Your task to perform on an android device: open app "Microsoft Outlook" (install if not already installed) Image 0: 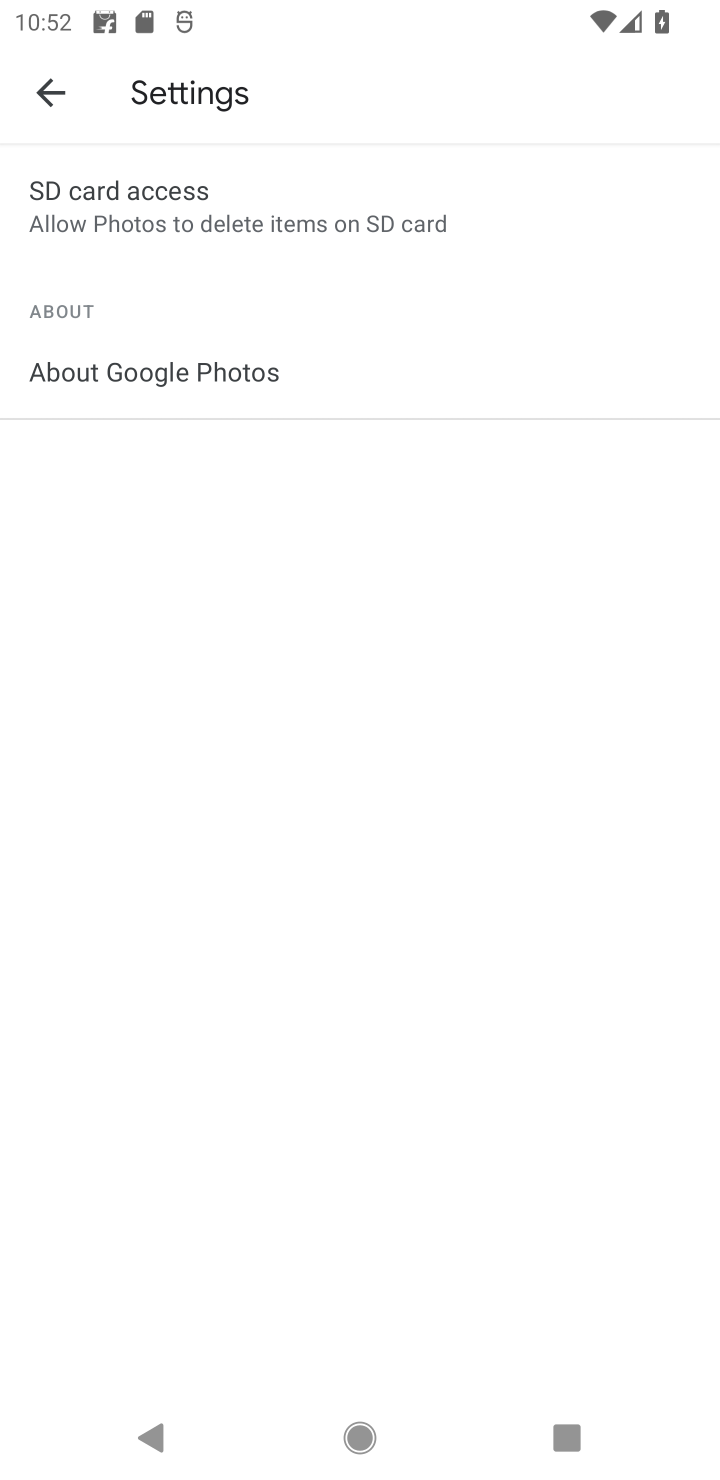
Step 0: press home button
Your task to perform on an android device: open app "Microsoft Outlook" (install if not already installed) Image 1: 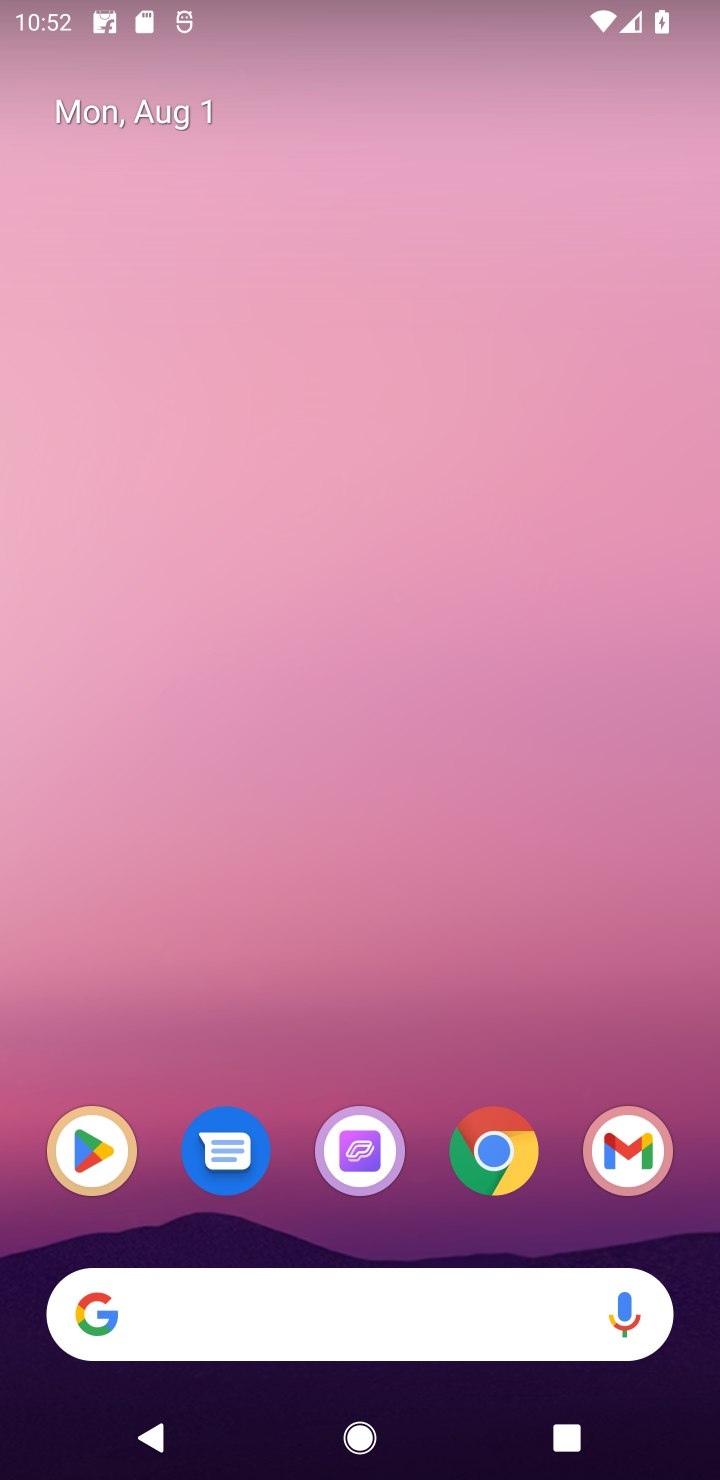
Step 1: click (99, 1180)
Your task to perform on an android device: open app "Microsoft Outlook" (install if not already installed) Image 2: 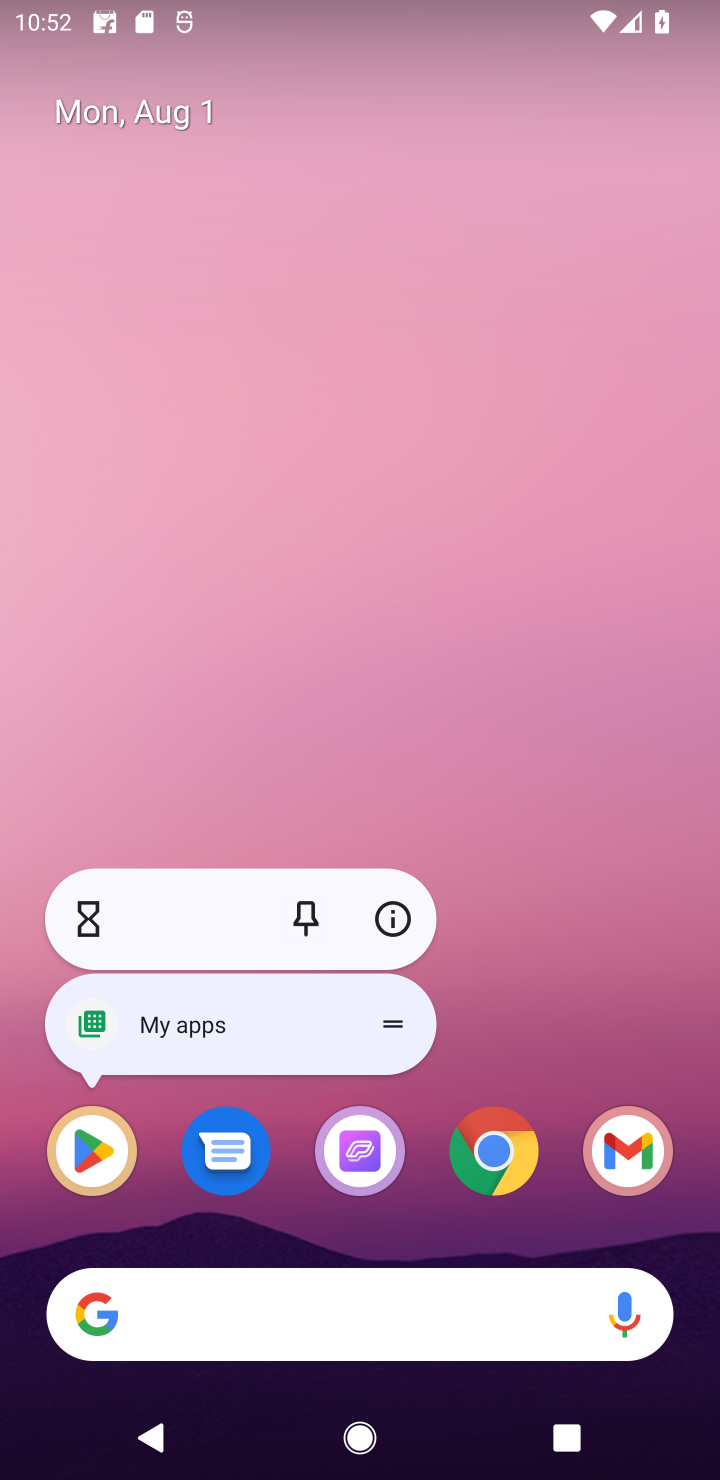
Step 2: click (101, 1180)
Your task to perform on an android device: open app "Microsoft Outlook" (install if not already installed) Image 3: 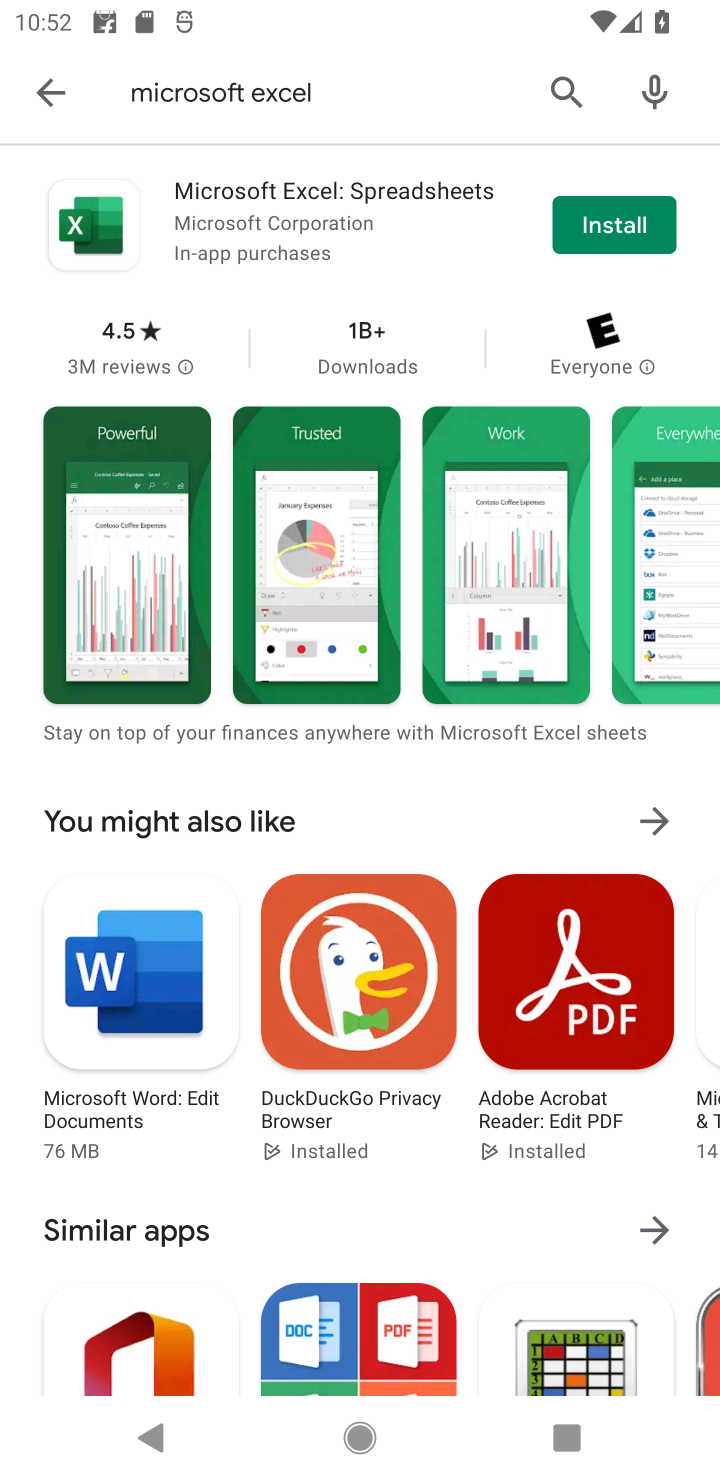
Step 3: click (557, 87)
Your task to perform on an android device: open app "Microsoft Outlook" (install if not already installed) Image 4: 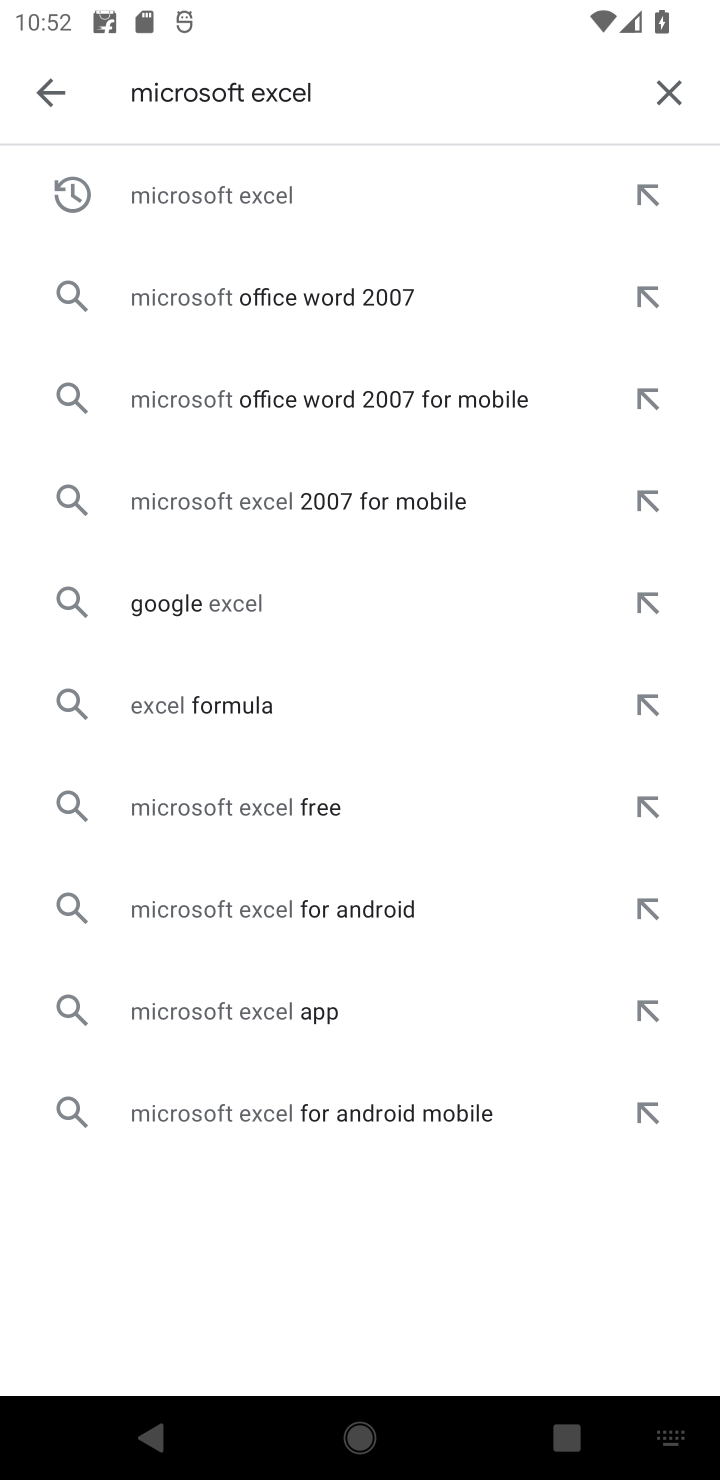
Step 4: click (674, 104)
Your task to perform on an android device: open app "Microsoft Outlook" (install if not already installed) Image 5: 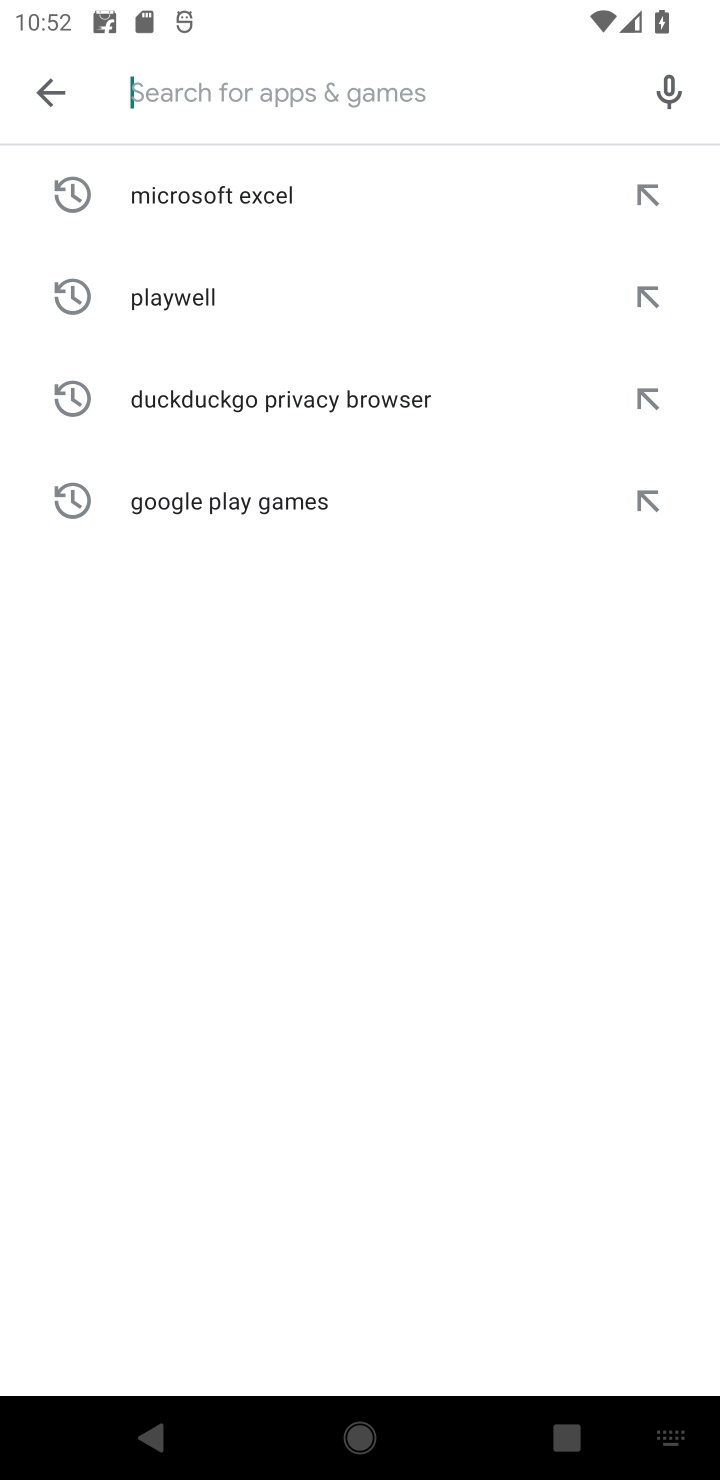
Step 5: click (452, 95)
Your task to perform on an android device: open app "Microsoft Outlook" (install if not already installed) Image 6: 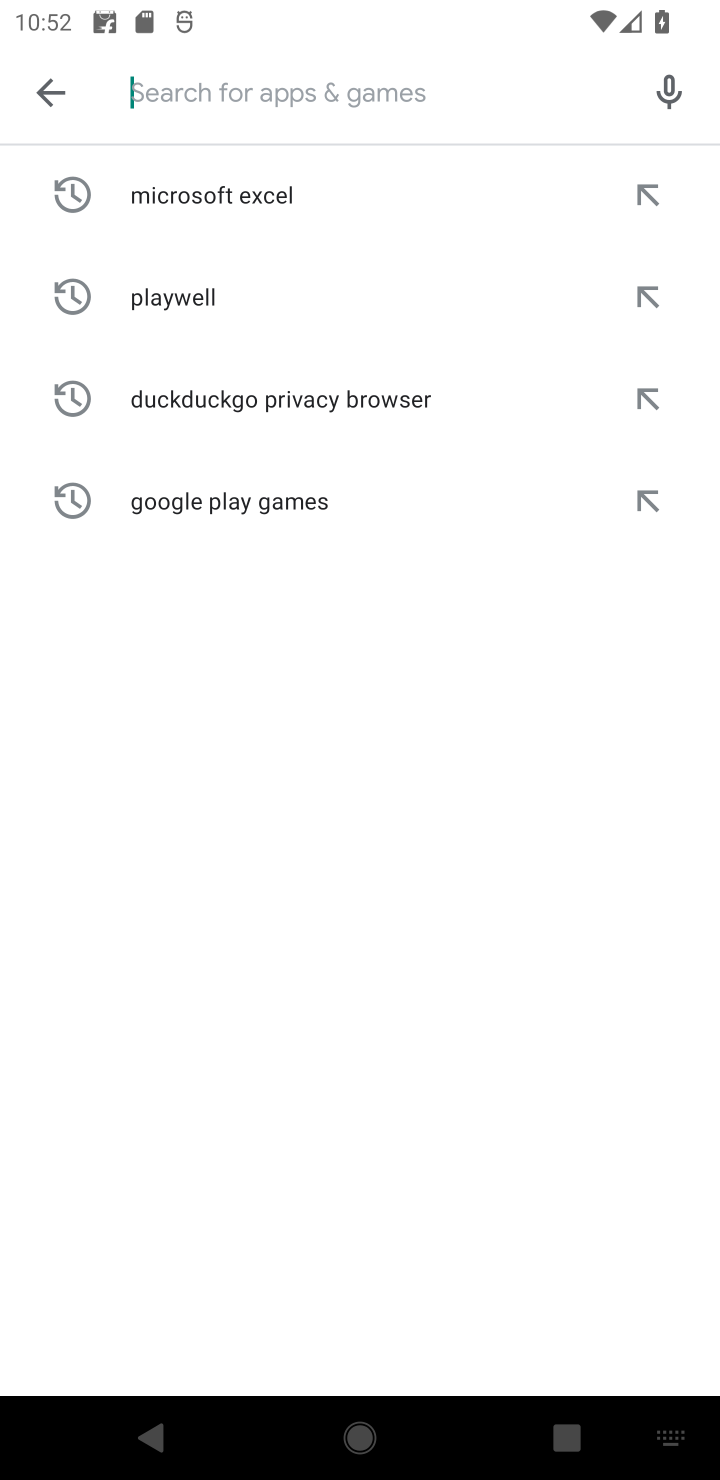
Step 6: type "Microsoft Outlook"
Your task to perform on an android device: open app "Microsoft Outlook" (install if not already installed) Image 7: 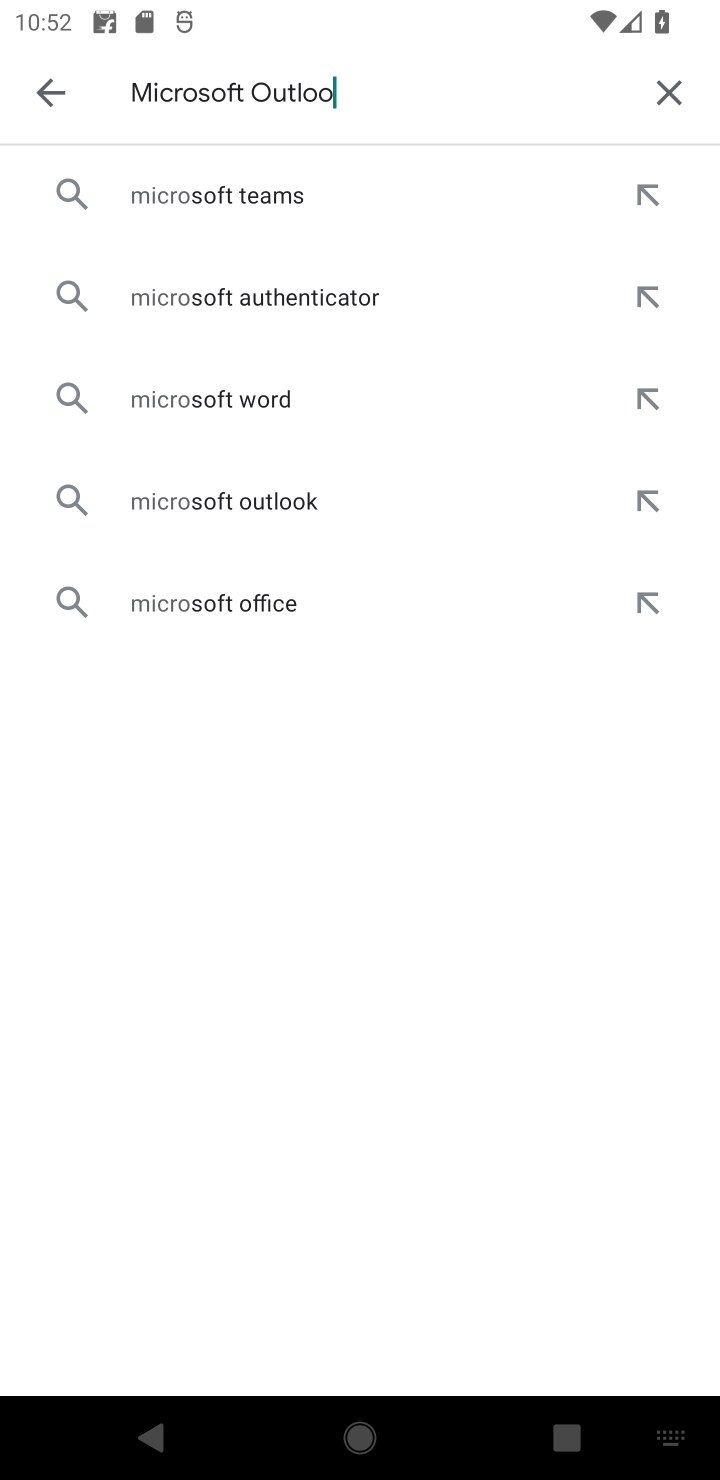
Step 7: type ""
Your task to perform on an android device: open app "Microsoft Outlook" (install if not already installed) Image 8: 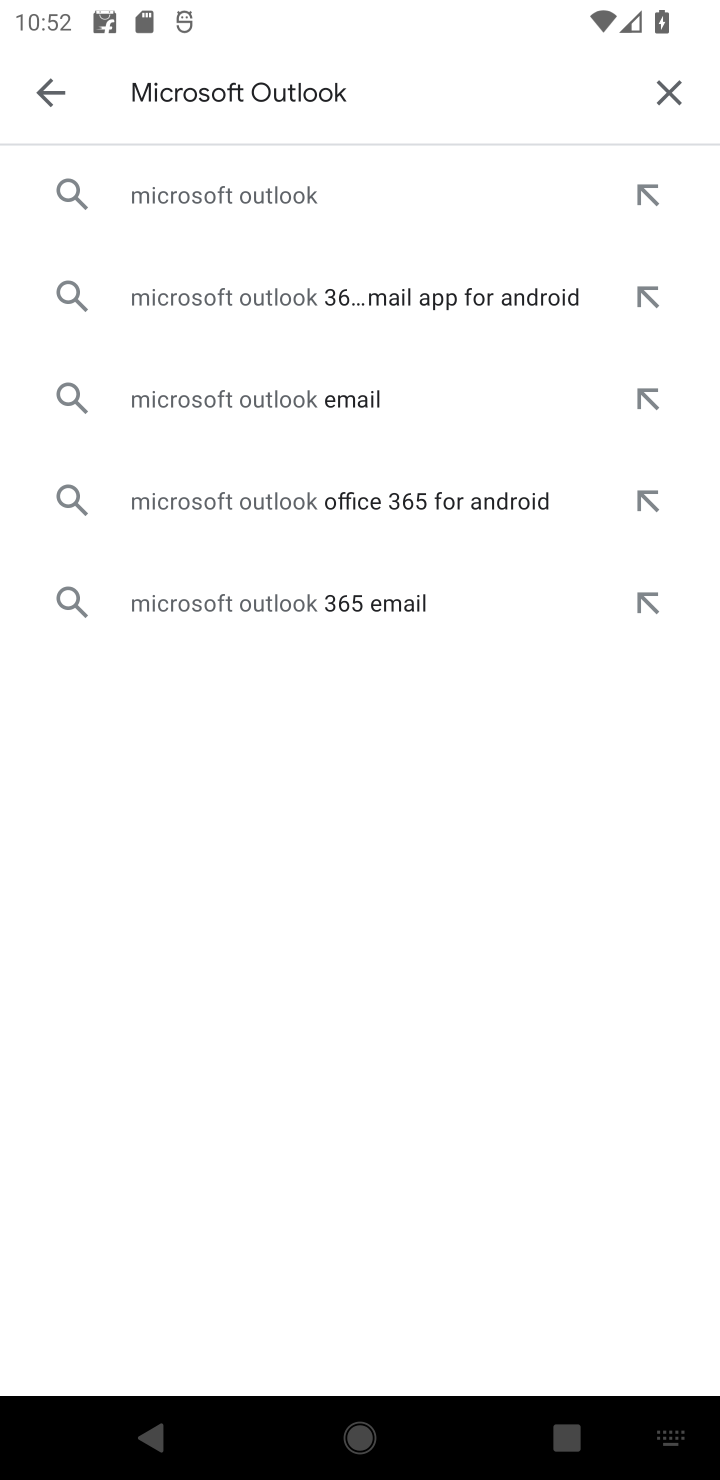
Step 8: click (362, 186)
Your task to perform on an android device: open app "Microsoft Outlook" (install if not already installed) Image 9: 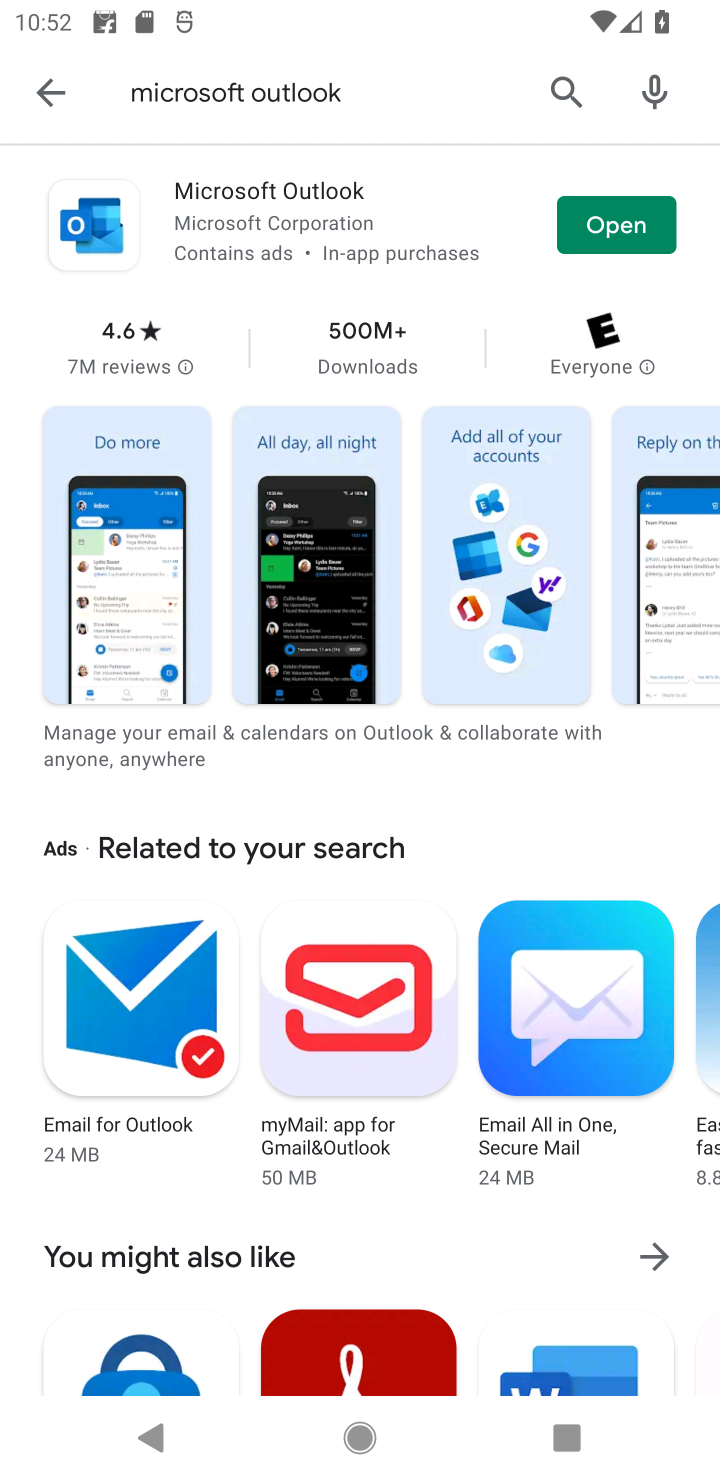
Step 9: click (608, 232)
Your task to perform on an android device: open app "Microsoft Outlook" (install if not already installed) Image 10: 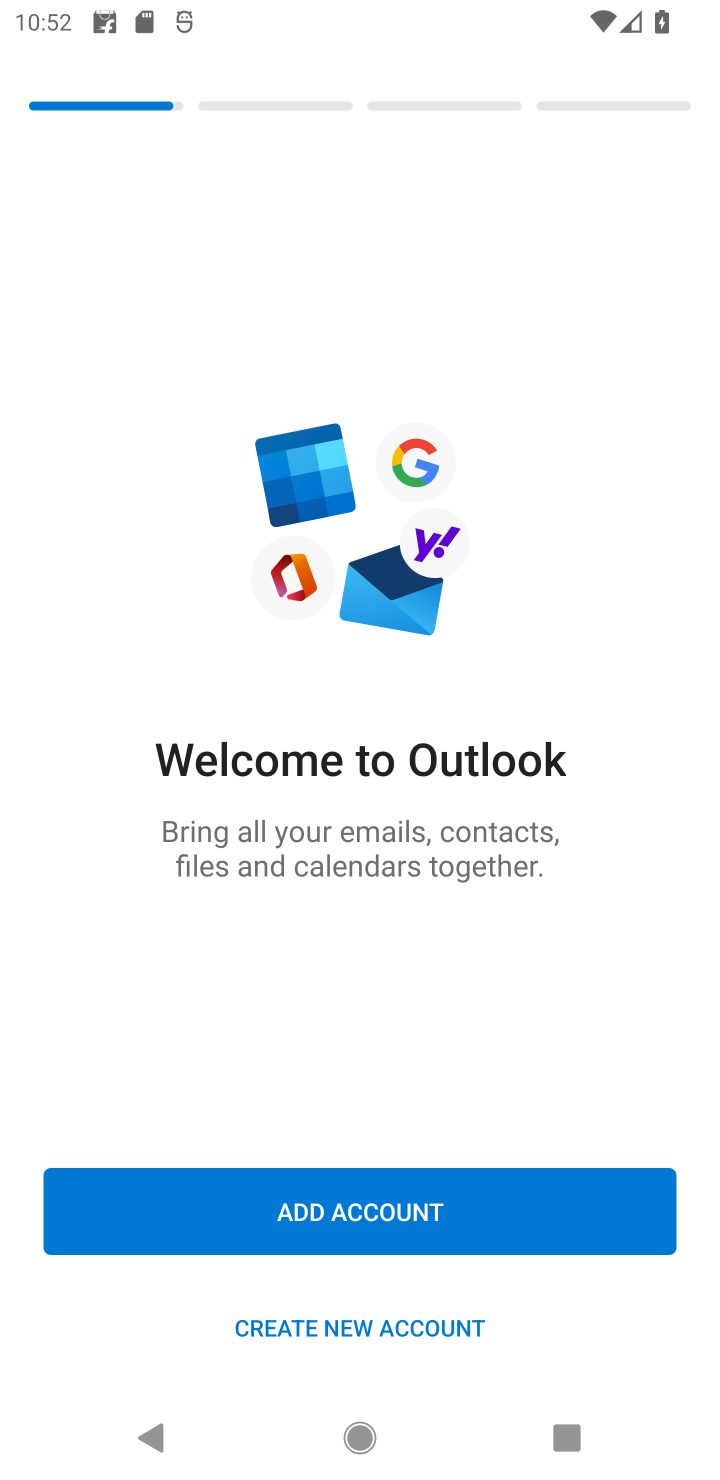
Step 10: task complete